Your task to perform on an android device: Open wifi settings Image 0: 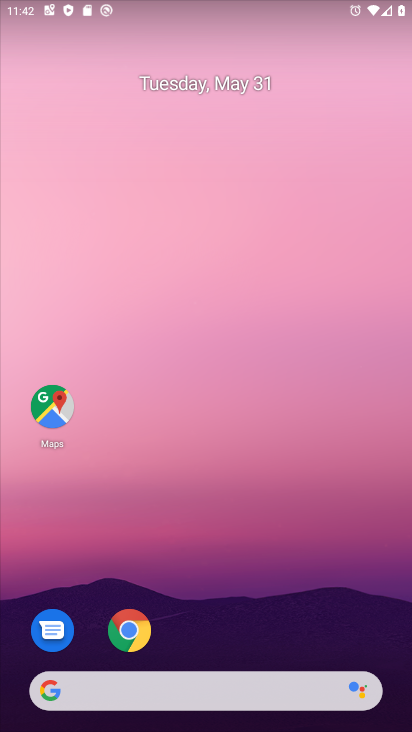
Step 0: drag from (138, 712) to (202, 23)
Your task to perform on an android device: Open wifi settings Image 1: 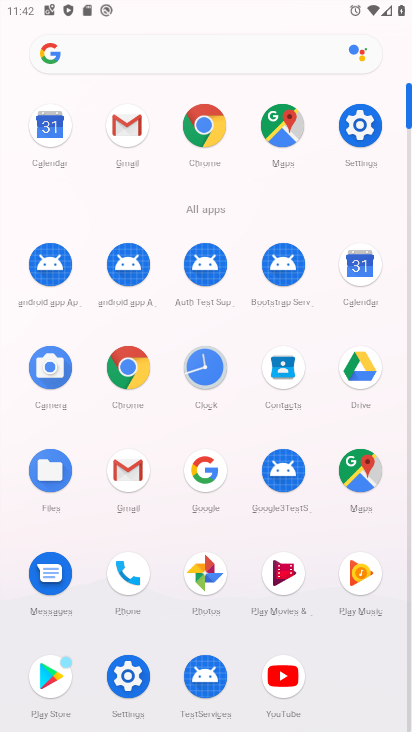
Step 1: click (354, 129)
Your task to perform on an android device: Open wifi settings Image 2: 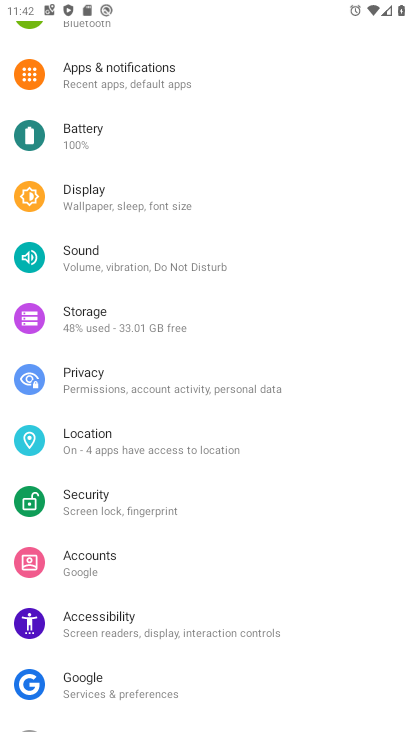
Step 2: drag from (174, 58) to (188, 548)
Your task to perform on an android device: Open wifi settings Image 3: 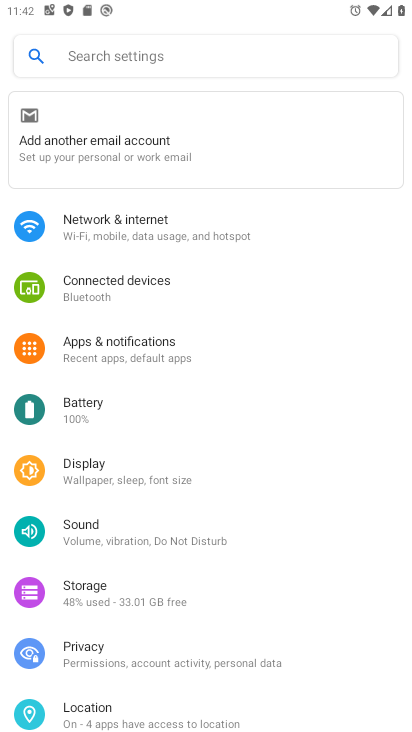
Step 3: click (140, 238)
Your task to perform on an android device: Open wifi settings Image 4: 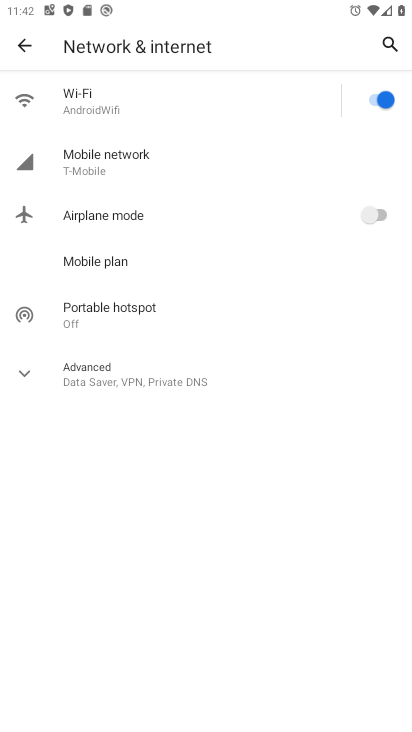
Step 4: click (111, 110)
Your task to perform on an android device: Open wifi settings Image 5: 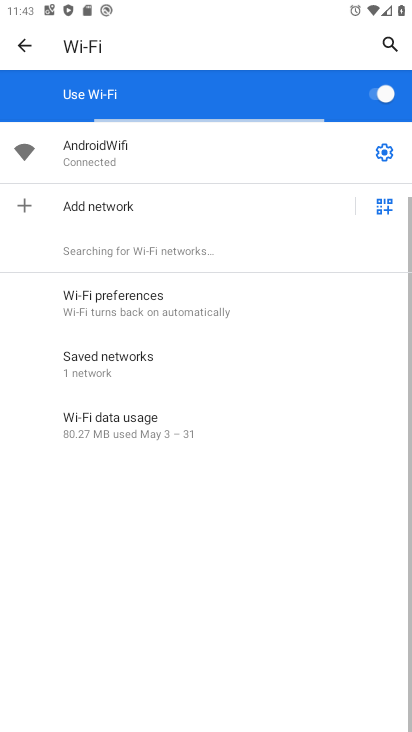
Step 5: task complete